Your task to perform on an android device: change the clock display to digital Image 0: 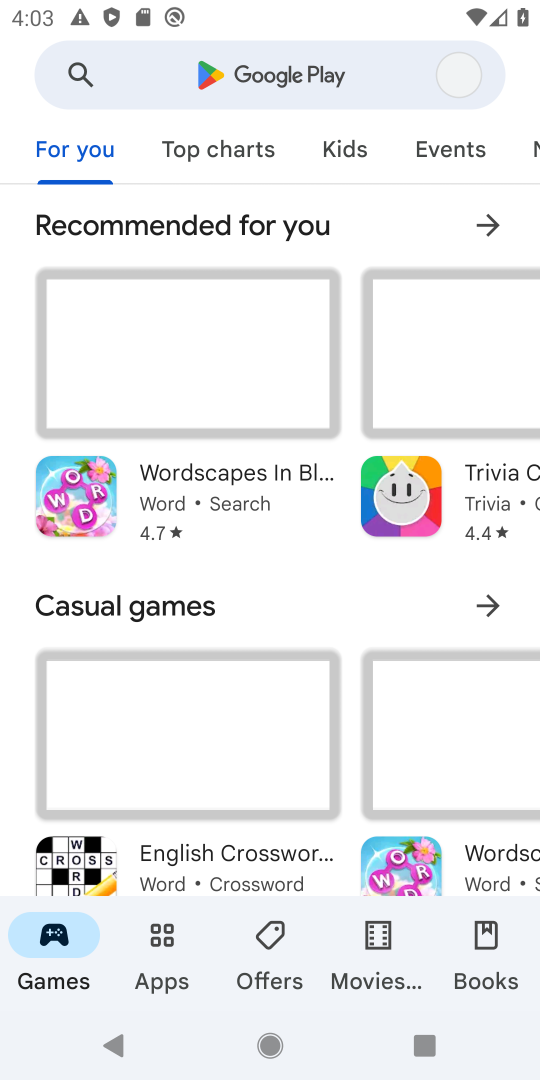
Step 0: press home button
Your task to perform on an android device: change the clock display to digital Image 1: 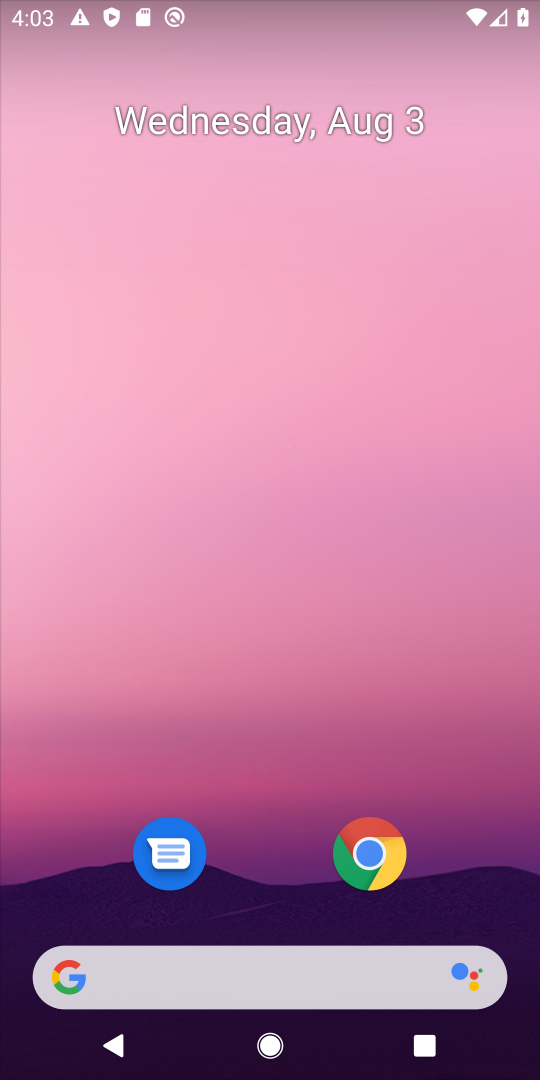
Step 1: drag from (278, 908) to (296, 41)
Your task to perform on an android device: change the clock display to digital Image 2: 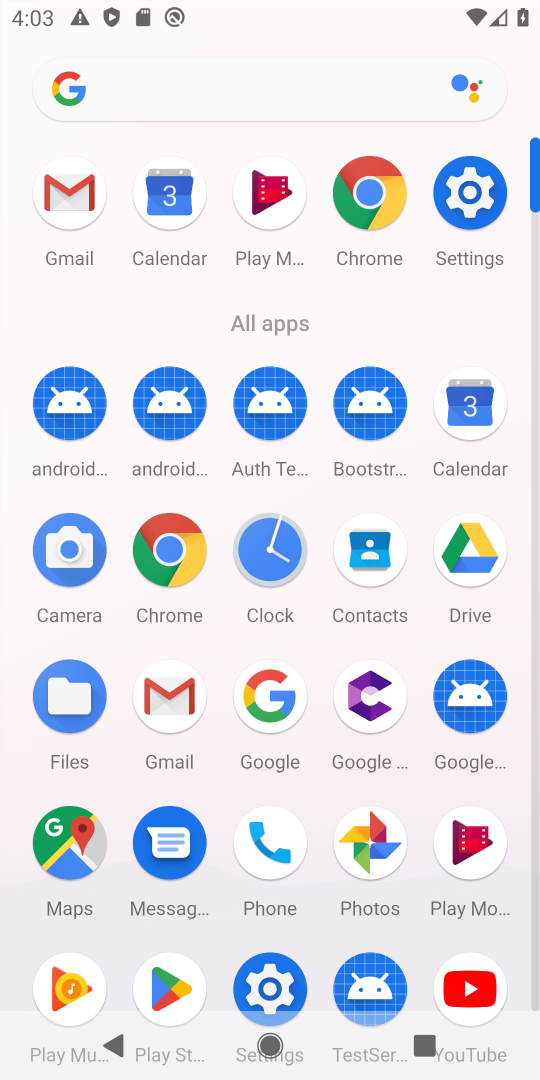
Step 2: click (456, 188)
Your task to perform on an android device: change the clock display to digital Image 3: 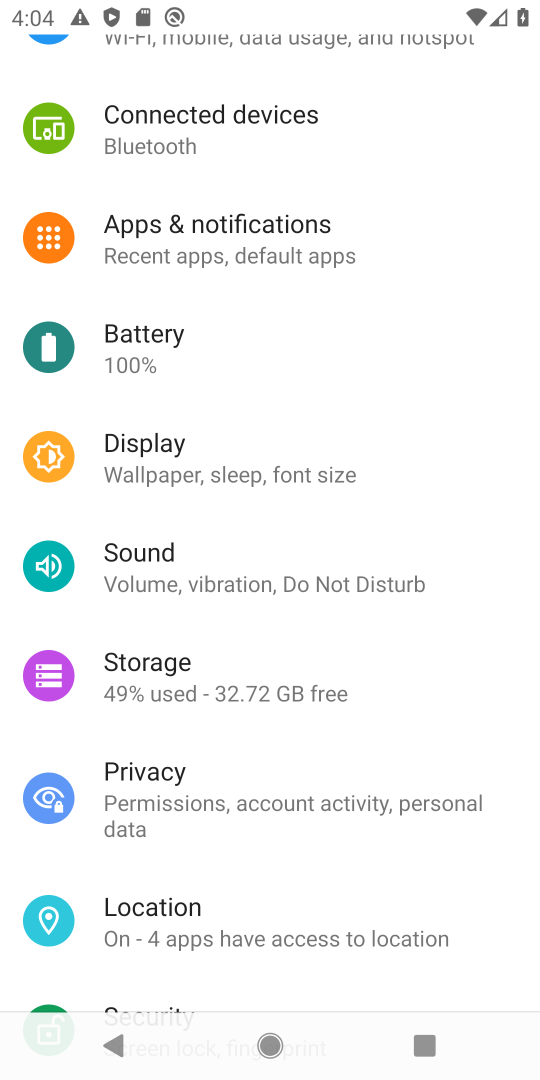
Step 3: click (136, 669)
Your task to perform on an android device: change the clock display to digital Image 4: 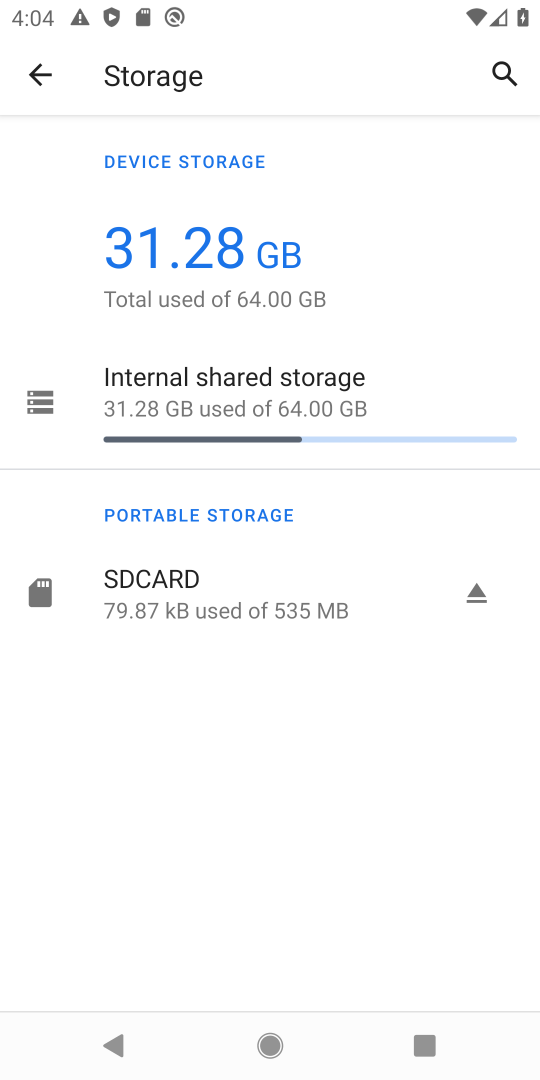
Step 4: task complete